Your task to perform on an android device: install app "Google Duo" Image 0: 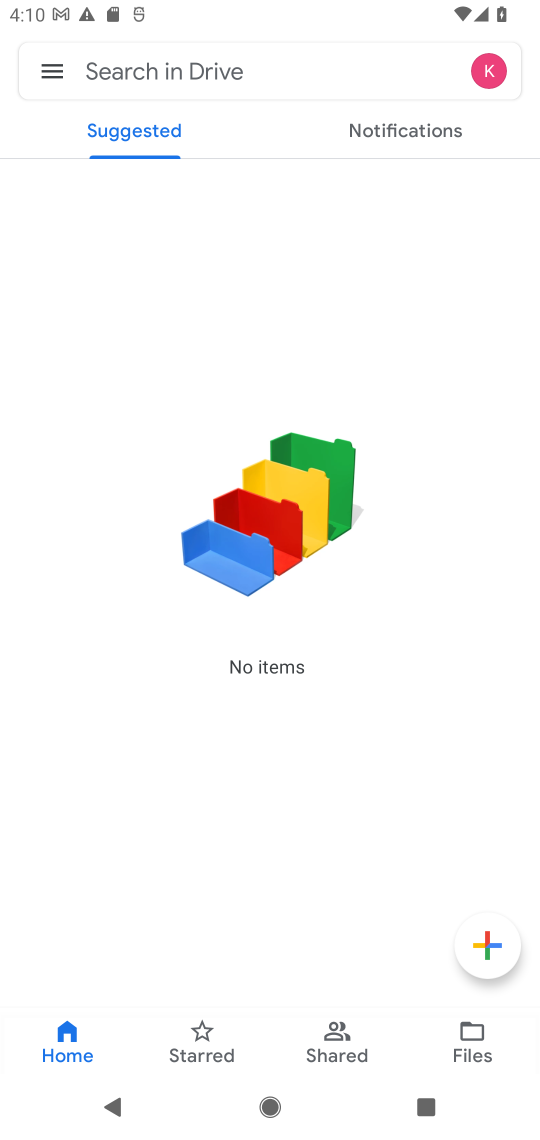
Step 0: press home button
Your task to perform on an android device: install app "Google Duo" Image 1: 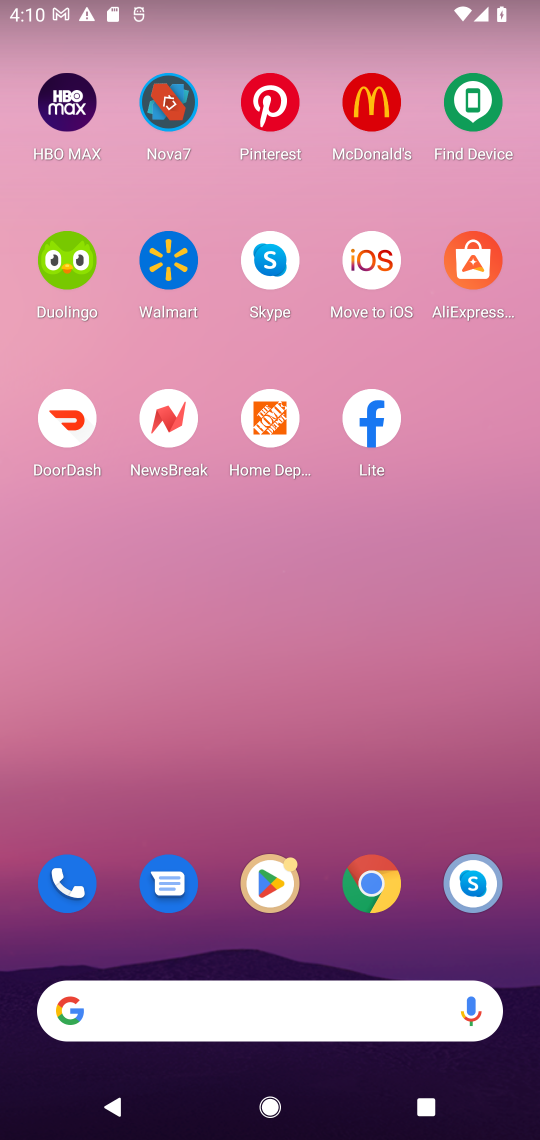
Step 1: click (367, 896)
Your task to perform on an android device: install app "Google Duo" Image 2: 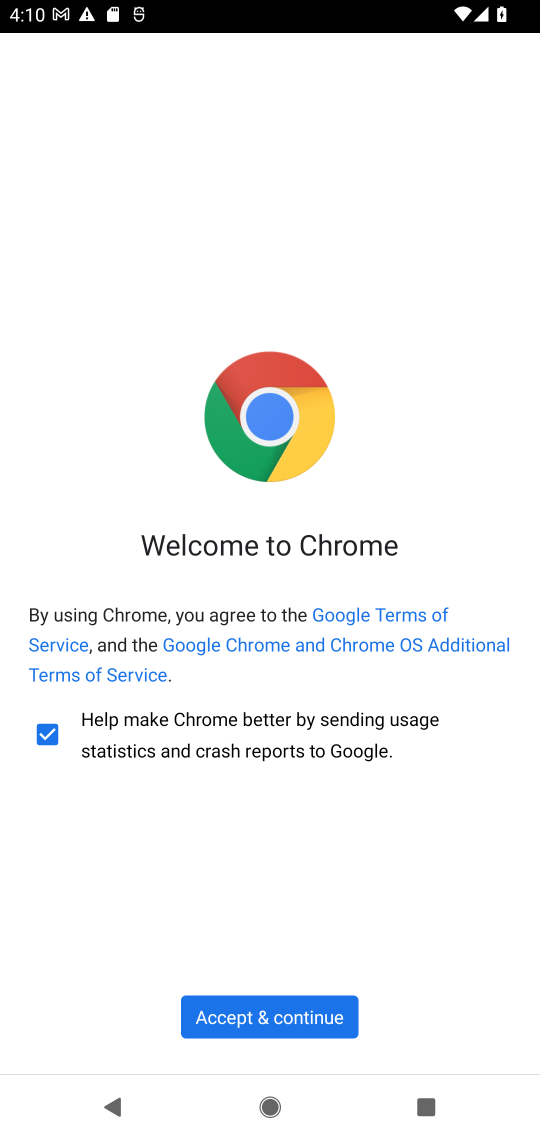
Step 2: click (293, 1009)
Your task to perform on an android device: install app "Google Duo" Image 3: 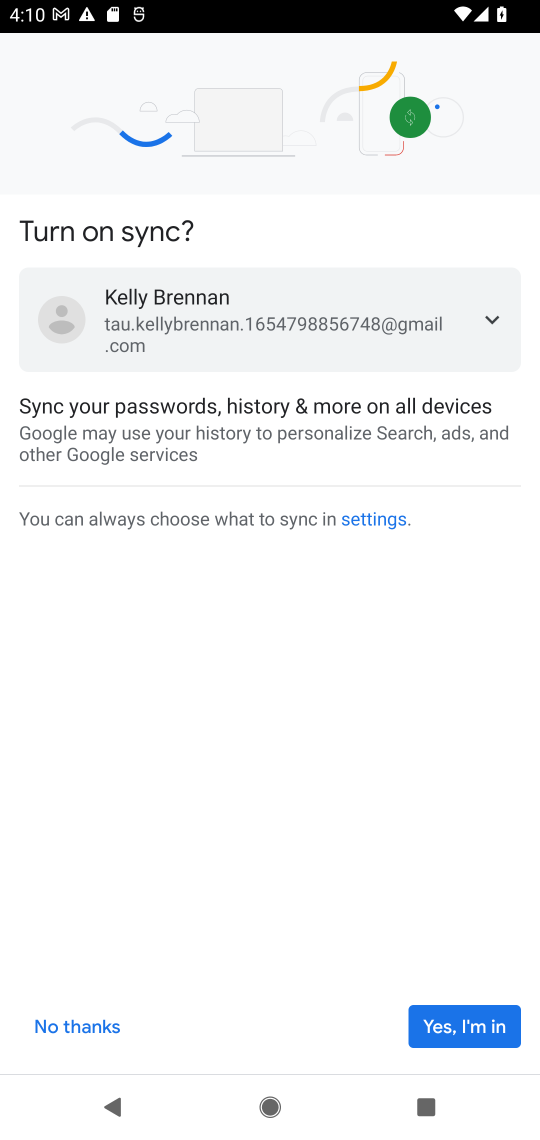
Step 3: press home button
Your task to perform on an android device: install app "Google Duo" Image 4: 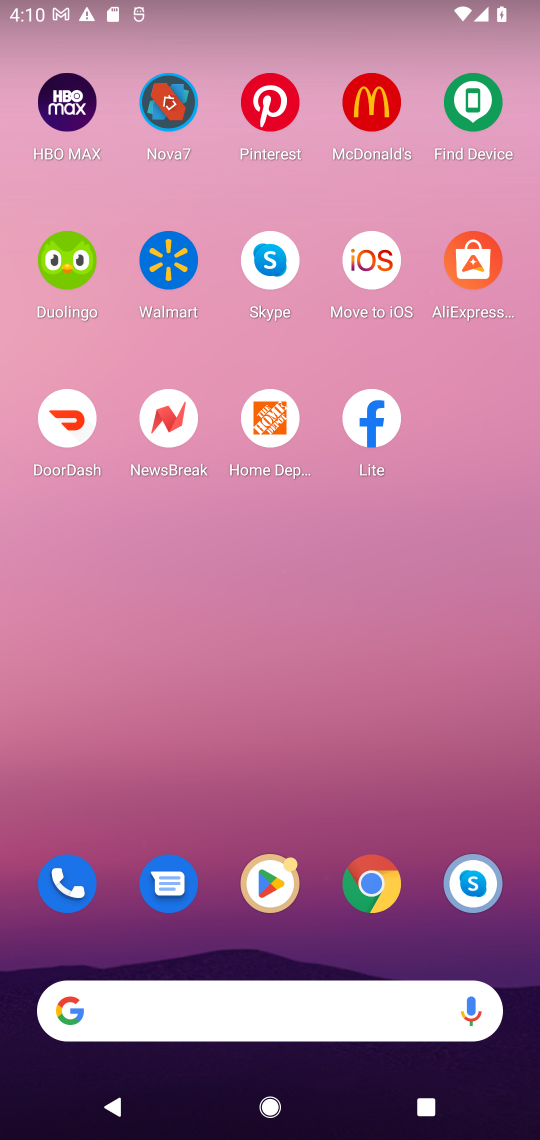
Step 4: drag from (283, 956) to (236, 467)
Your task to perform on an android device: install app "Google Duo" Image 5: 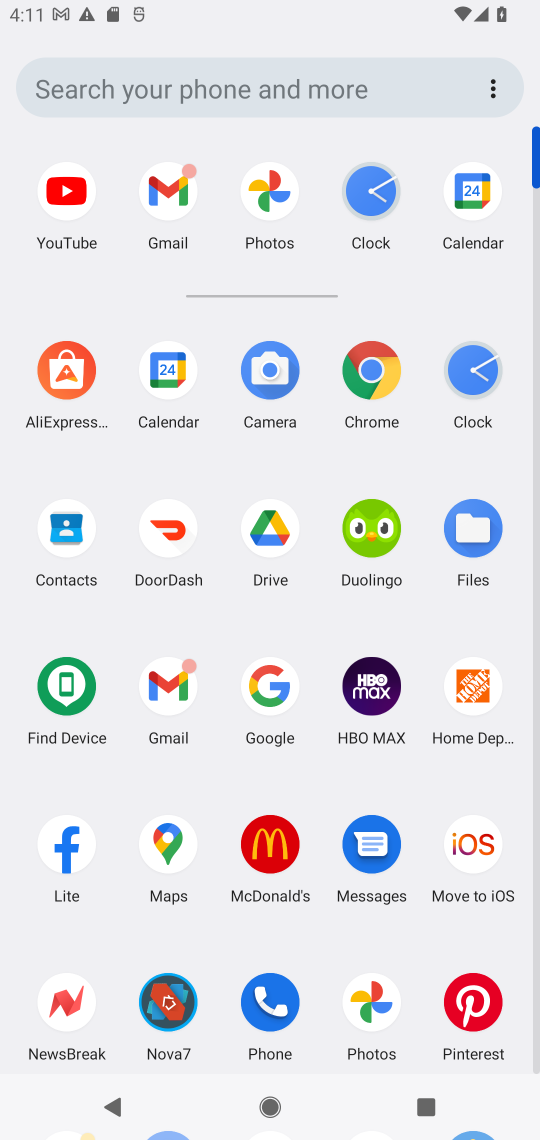
Step 5: drag from (350, 1010) to (278, 481)
Your task to perform on an android device: install app "Google Duo" Image 6: 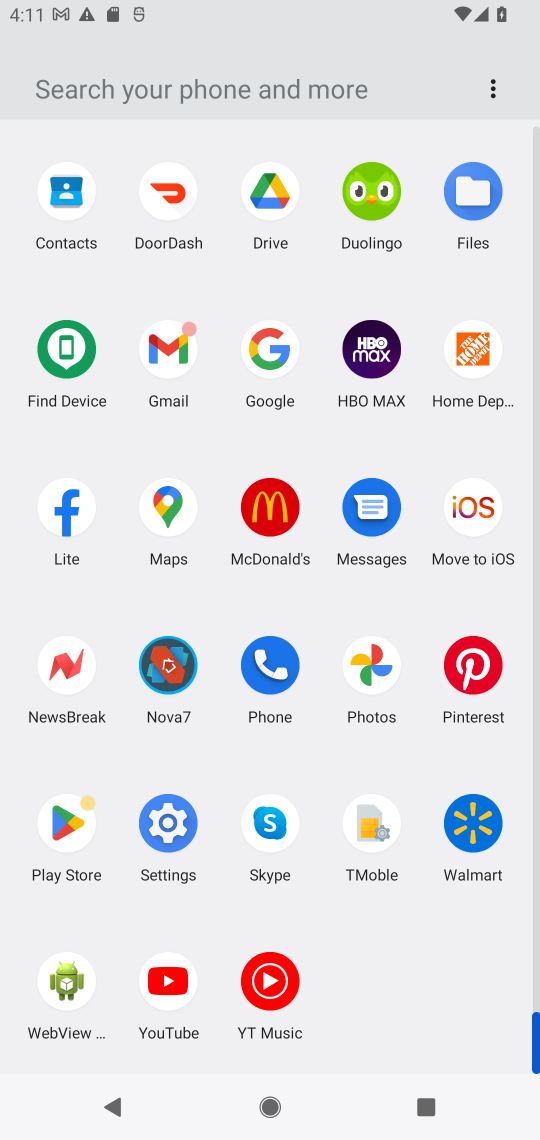
Step 6: click (51, 824)
Your task to perform on an android device: install app "Google Duo" Image 7: 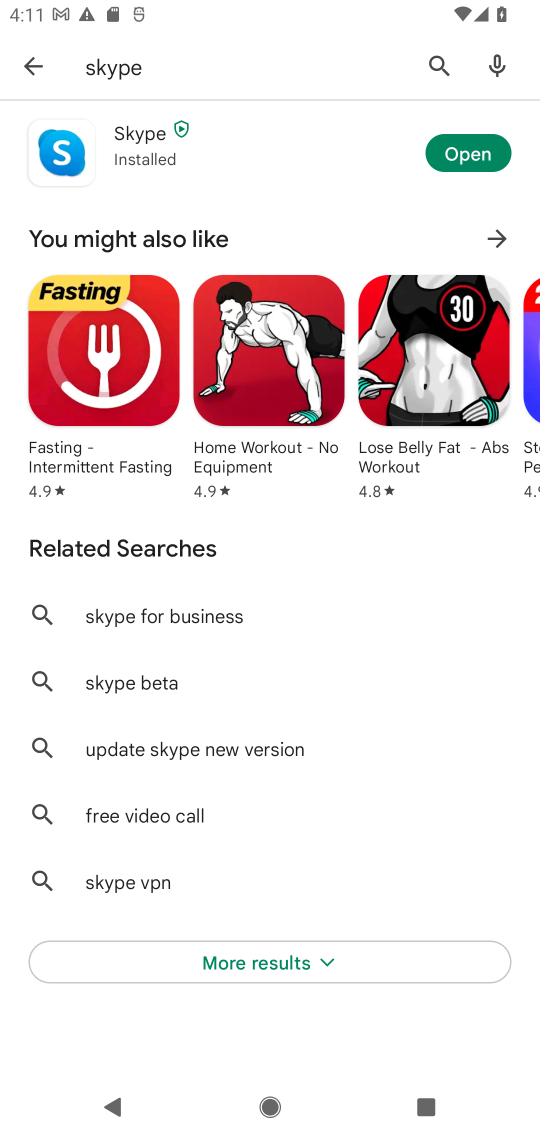
Step 7: click (441, 61)
Your task to perform on an android device: install app "Google Duo" Image 8: 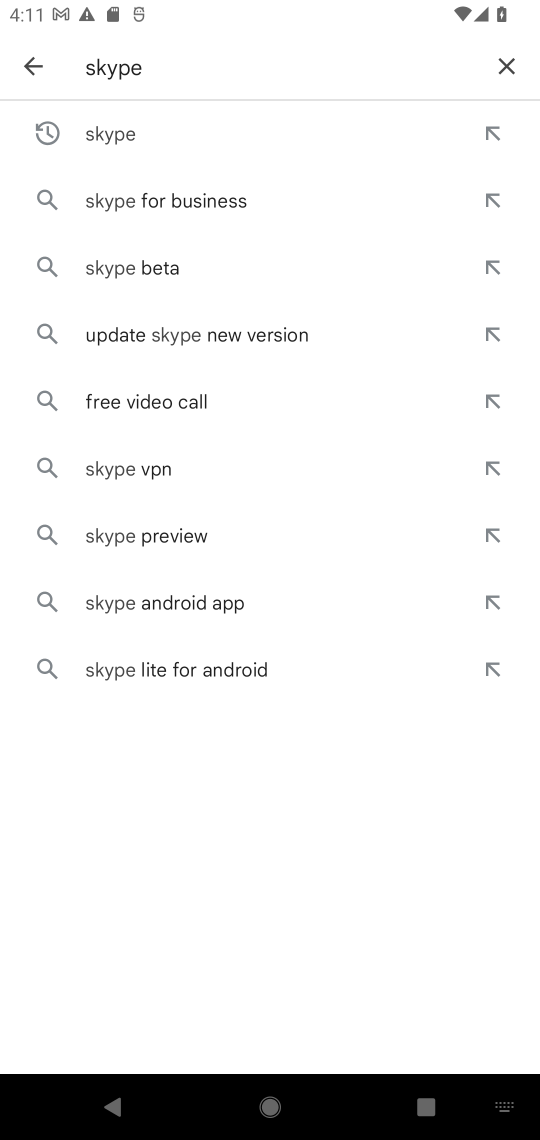
Step 8: click (499, 63)
Your task to perform on an android device: install app "Google Duo" Image 9: 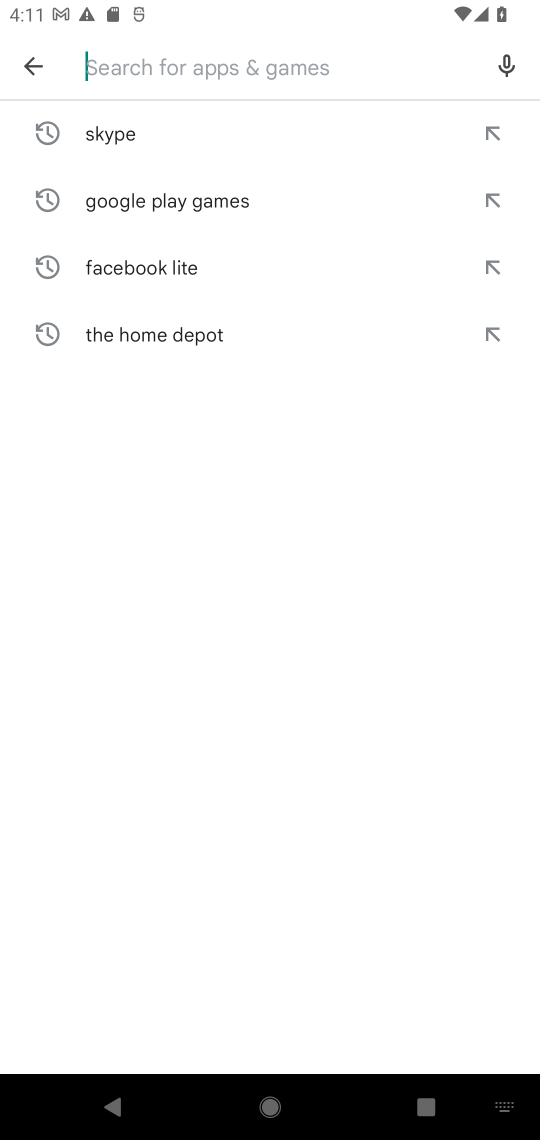
Step 9: type "Google Duo"
Your task to perform on an android device: install app "Google Duo" Image 10: 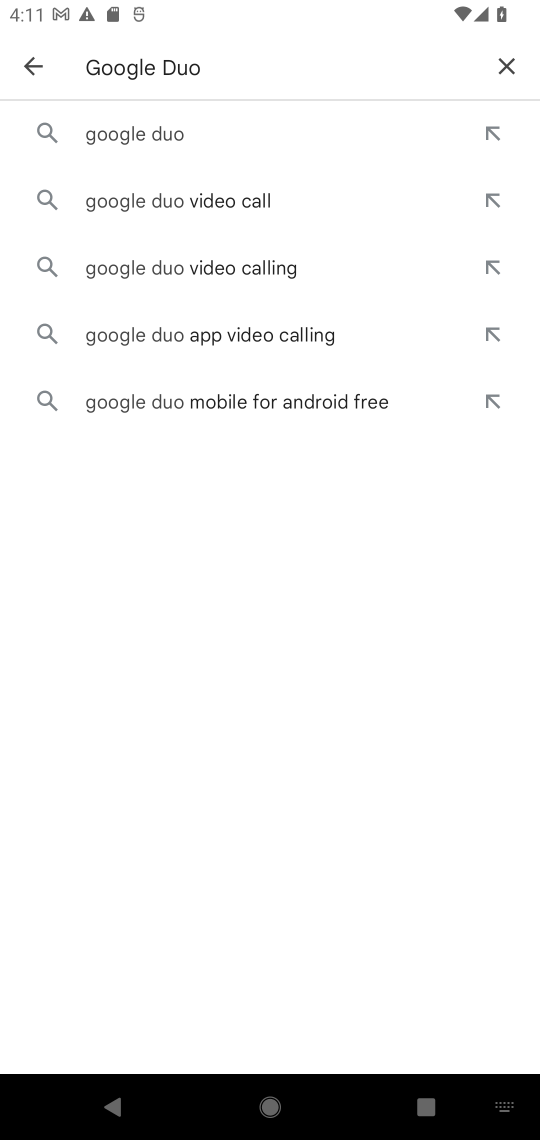
Step 10: click (131, 143)
Your task to perform on an android device: install app "Google Duo" Image 11: 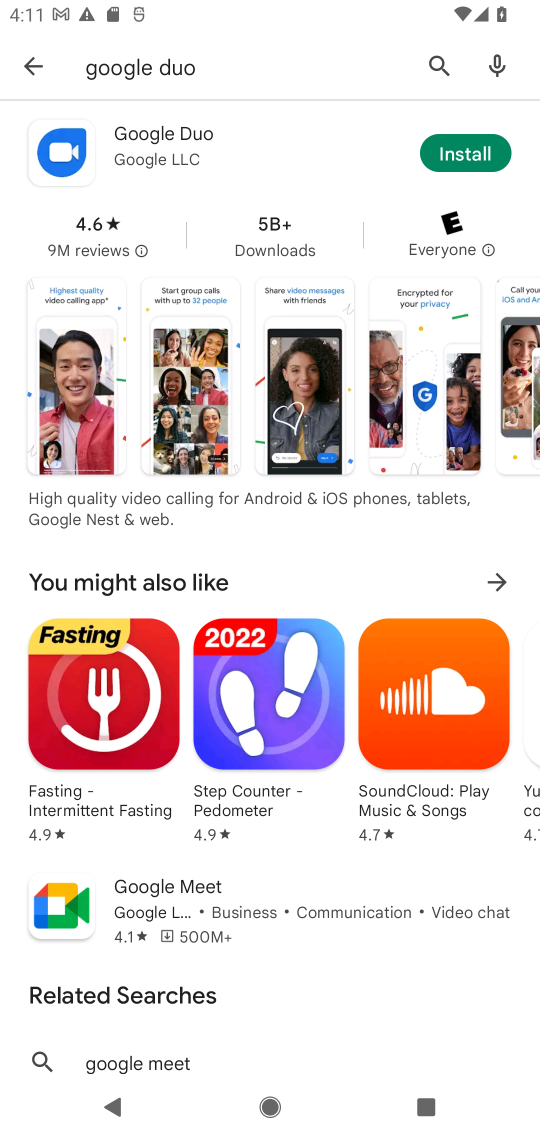
Step 11: click (436, 132)
Your task to perform on an android device: install app "Google Duo" Image 12: 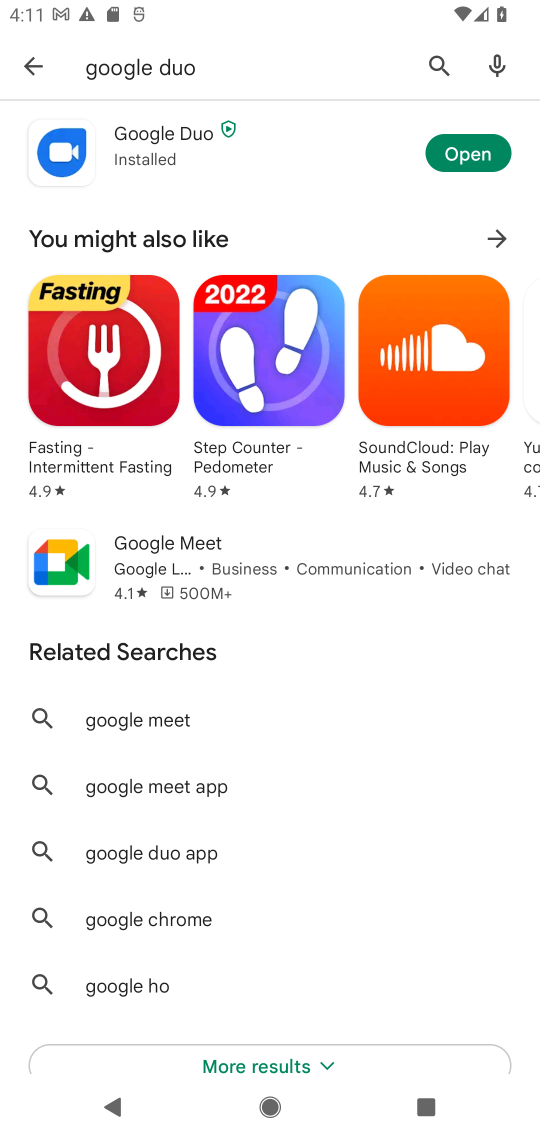
Step 12: click (454, 131)
Your task to perform on an android device: install app "Google Duo" Image 13: 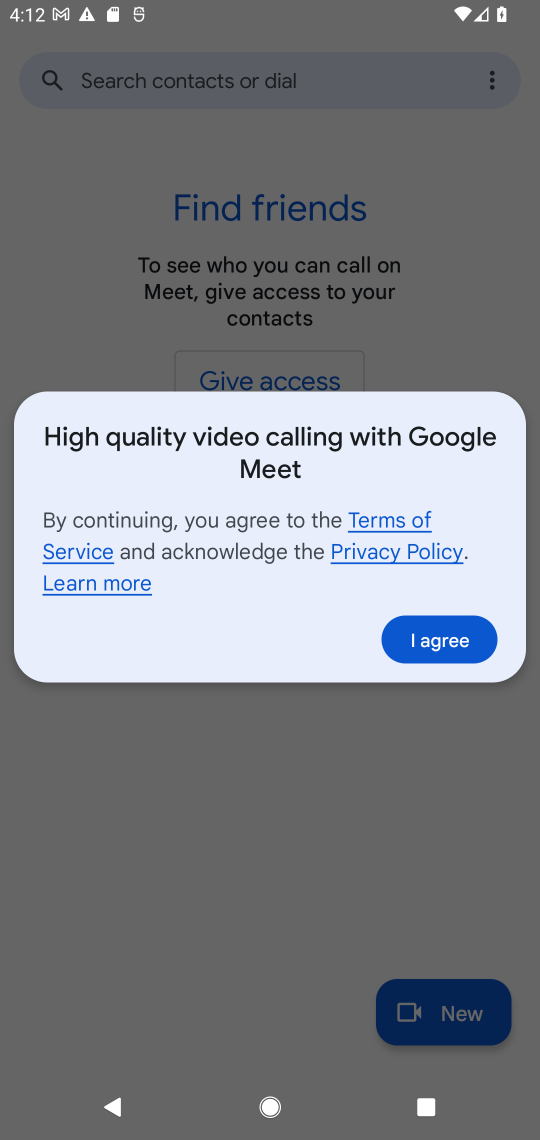
Step 13: task complete